Your task to perform on an android device: turn on the 24-hour format for clock Image 0: 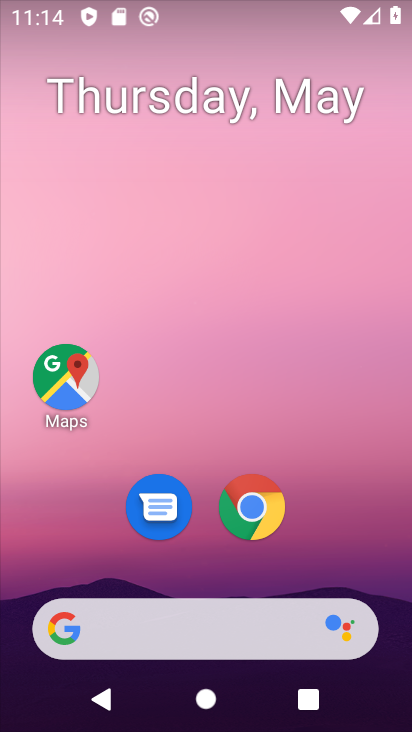
Step 0: drag from (234, 639) to (270, 227)
Your task to perform on an android device: turn on the 24-hour format for clock Image 1: 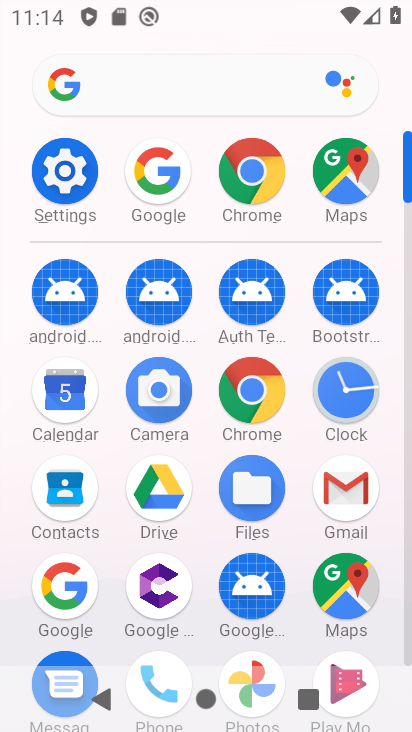
Step 1: click (337, 417)
Your task to perform on an android device: turn on the 24-hour format for clock Image 2: 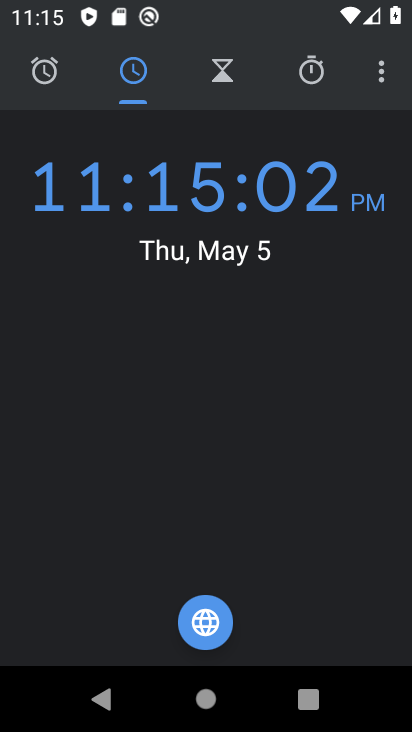
Step 2: click (386, 80)
Your task to perform on an android device: turn on the 24-hour format for clock Image 3: 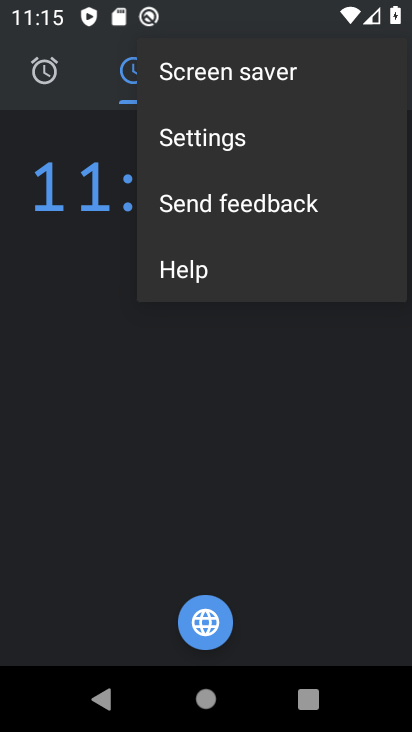
Step 3: click (250, 149)
Your task to perform on an android device: turn on the 24-hour format for clock Image 4: 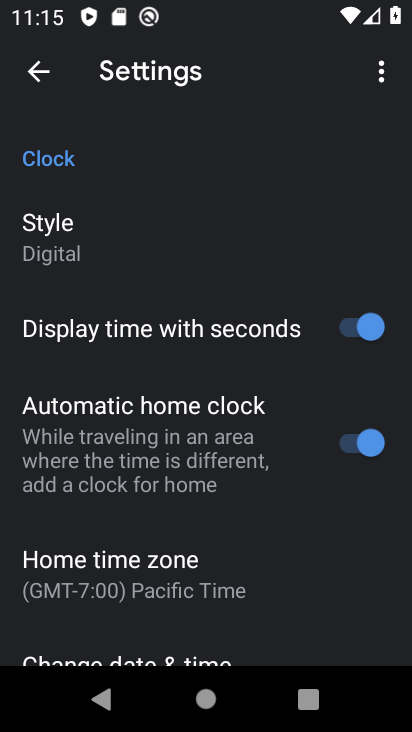
Step 4: drag from (183, 543) to (230, 255)
Your task to perform on an android device: turn on the 24-hour format for clock Image 5: 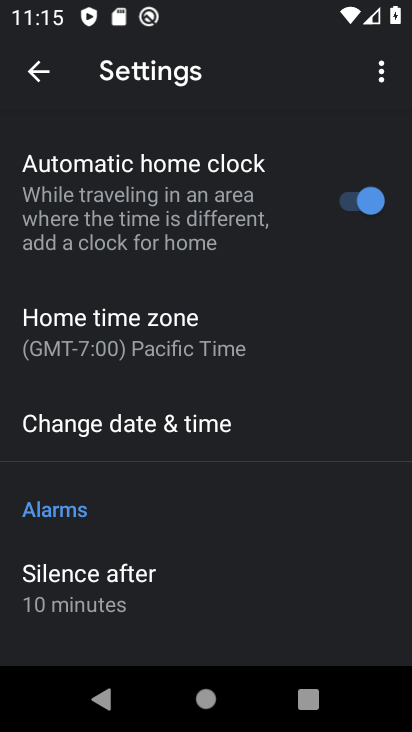
Step 5: click (239, 429)
Your task to perform on an android device: turn on the 24-hour format for clock Image 6: 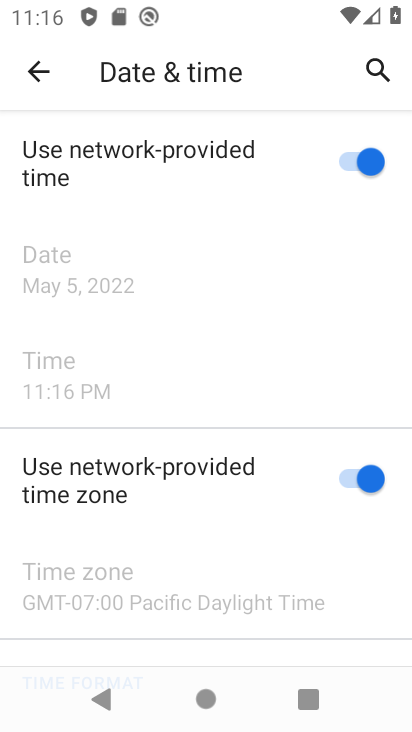
Step 6: task complete